Your task to perform on an android device: Go to Amazon Image 0: 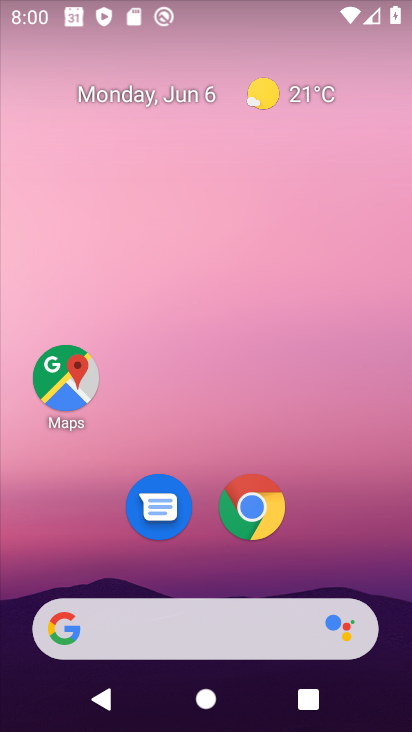
Step 0: drag from (196, 548) to (258, 1)
Your task to perform on an android device: Go to Amazon Image 1: 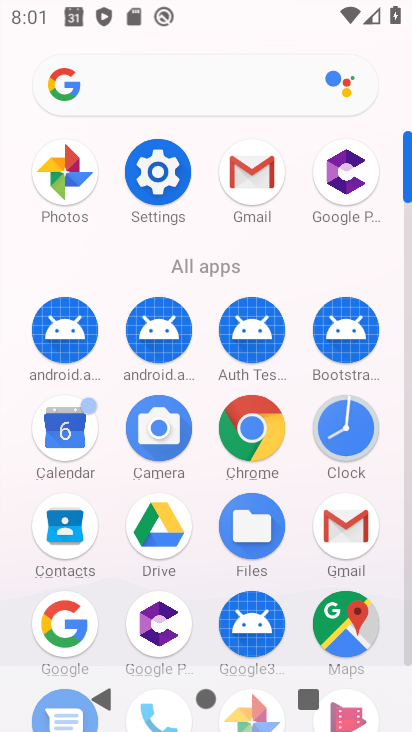
Step 1: click (254, 433)
Your task to perform on an android device: Go to Amazon Image 2: 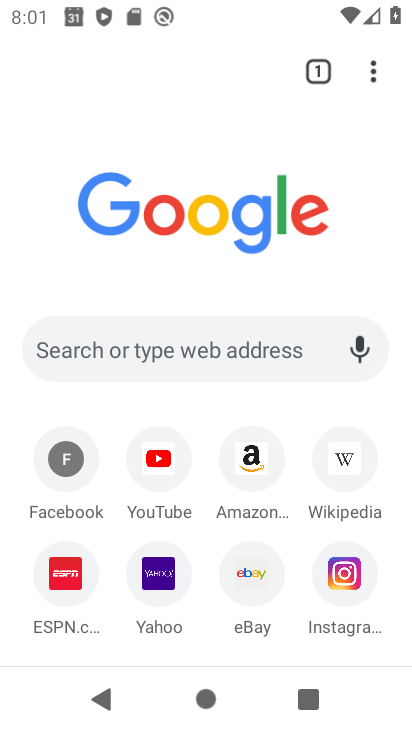
Step 2: click (257, 469)
Your task to perform on an android device: Go to Amazon Image 3: 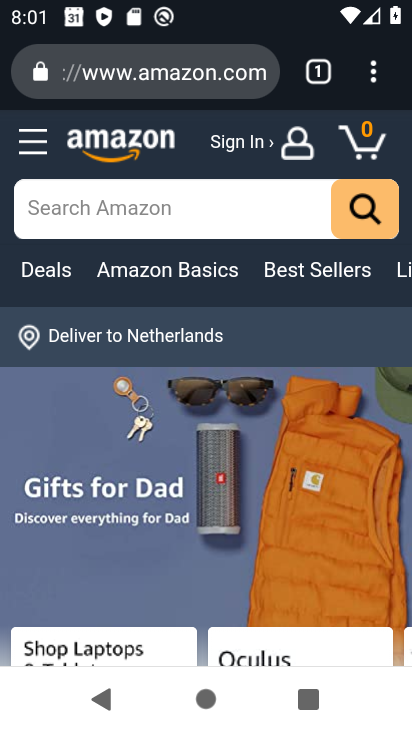
Step 3: task complete